Your task to perform on an android device: Do I have any events today? Image 0: 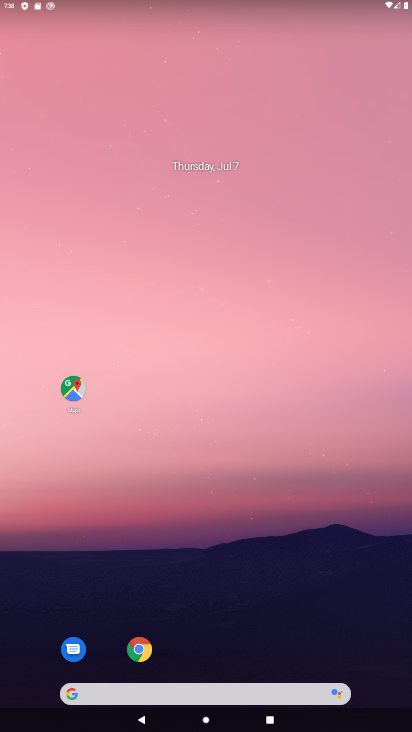
Step 0: press home button
Your task to perform on an android device: Do I have any events today? Image 1: 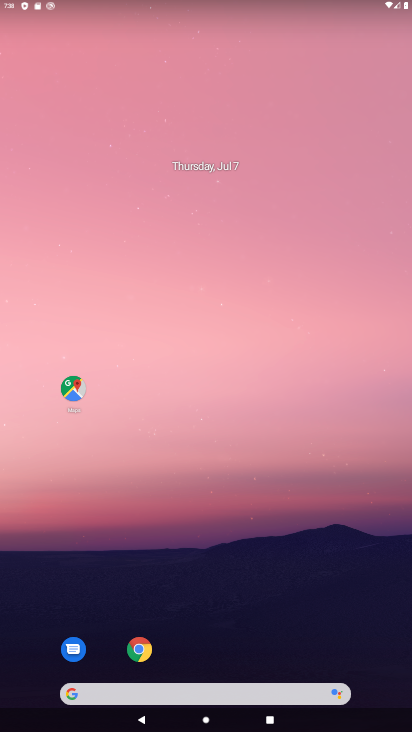
Step 1: drag from (211, 661) to (234, 59)
Your task to perform on an android device: Do I have any events today? Image 2: 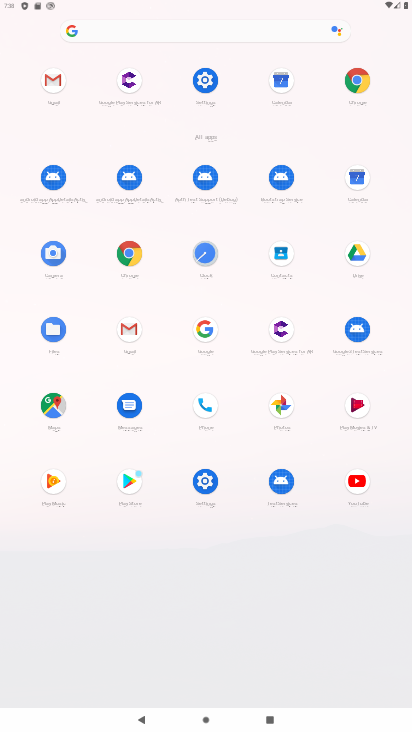
Step 2: click (353, 173)
Your task to perform on an android device: Do I have any events today? Image 3: 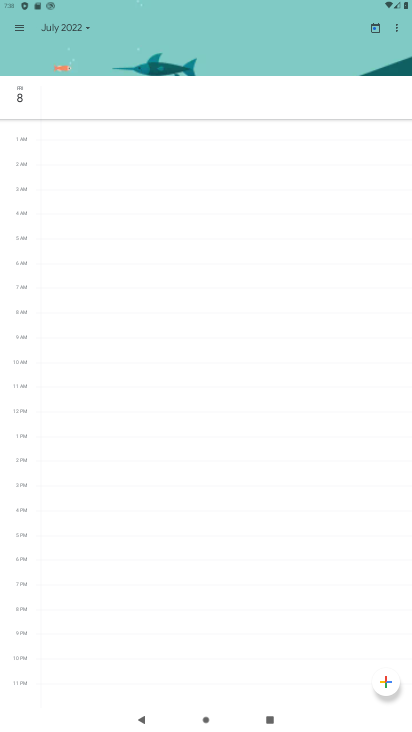
Step 3: click (20, 101)
Your task to perform on an android device: Do I have any events today? Image 4: 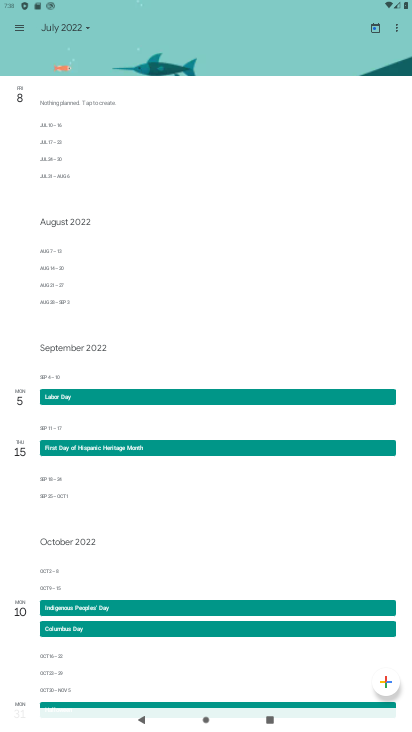
Step 4: click (88, 29)
Your task to perform on an android device: Do I have any events today? Image 5: 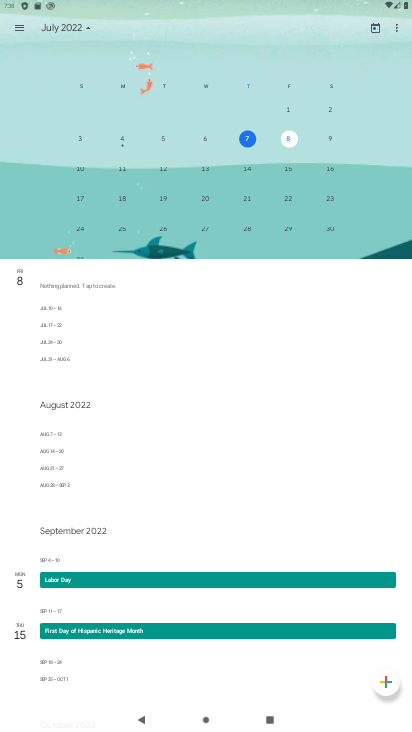
Step 5: click (247, 133)
Your task to perform on an android device: Do I have any events today? Image 6: 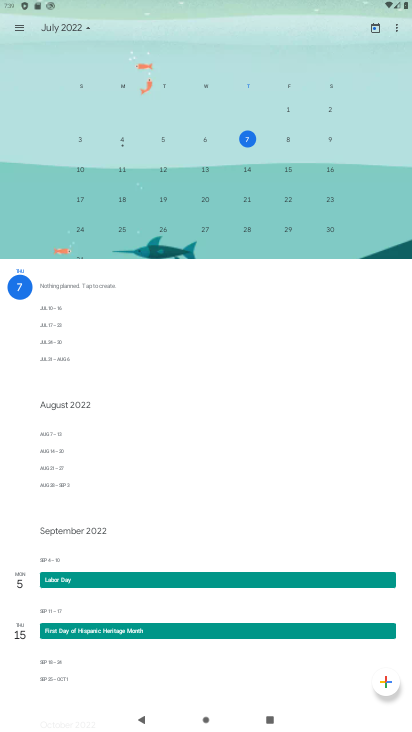
Step 6: click (17, 27)
Your task to perform on an android device: Do I have any events today? Image 7: 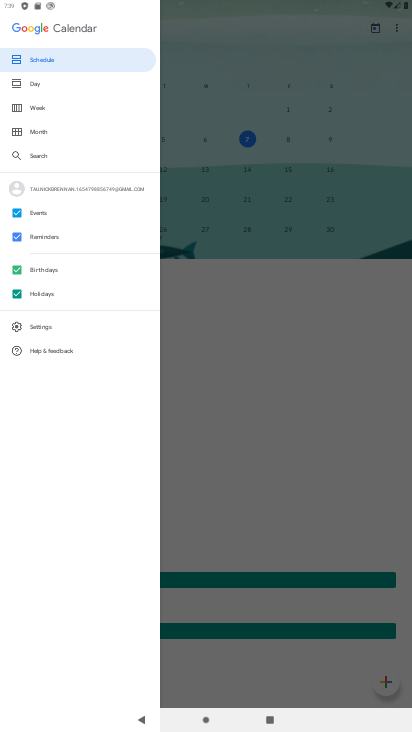
Step 7: click (18, 234)
Your task to perform on an android device: Do I have any events today? Image 8: 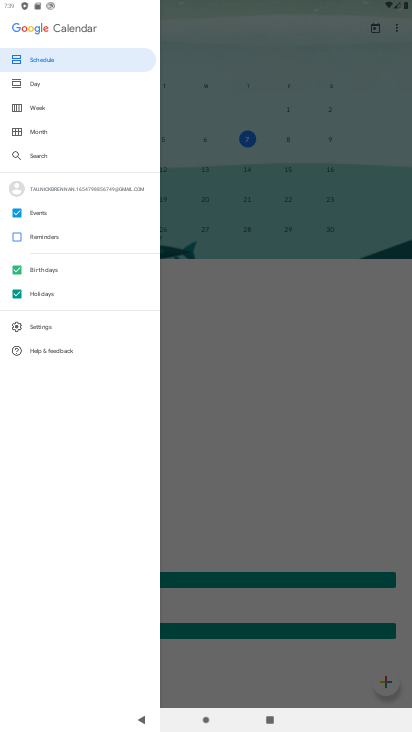
Step 8: click (14, 268)
Your task to perform on an android device: Do I have any events today? Image 9: 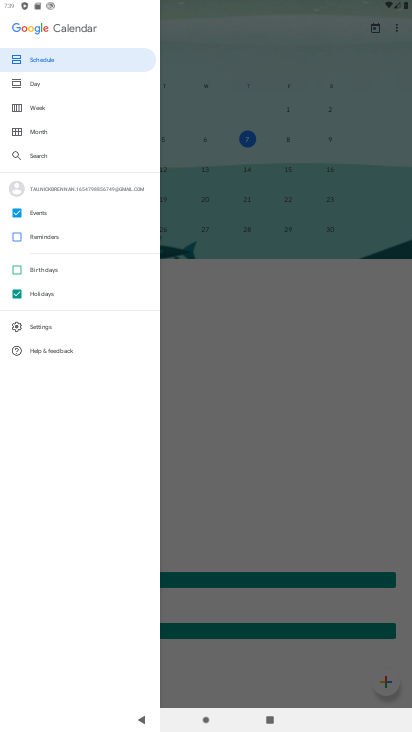
Step 9: click (17, 294)
Your task to perform on an android device: Do I have any events today? Image 10: 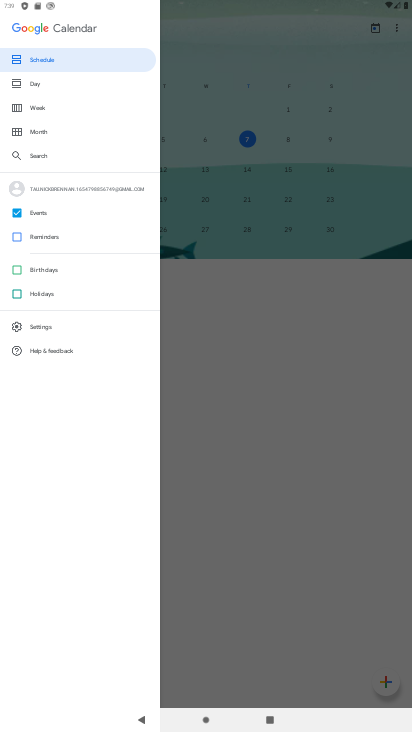
Step 10: click (33, 60)
Your task to perform on an android device: Do I have any events today? Image 11: 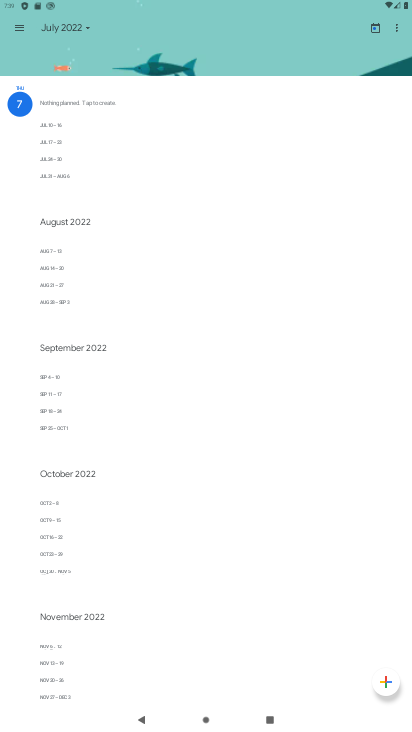
Step 11: click (28, 104)
Your task to perform on an android device: Do I have any events today? Image 12: 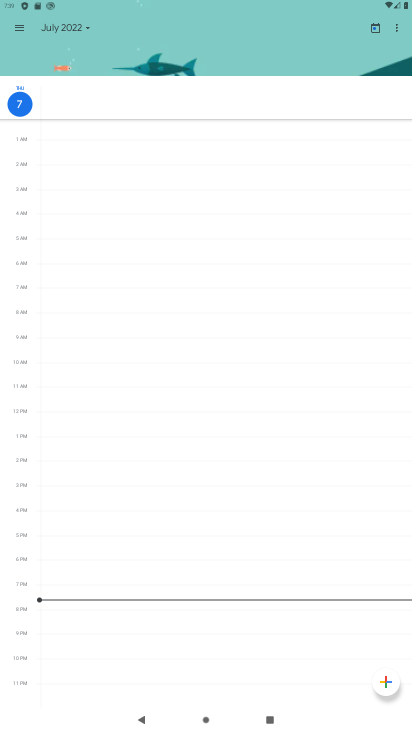
Step 12: task complete